Your task to perform on an android device: change notification settings in the gmail app Image 0: 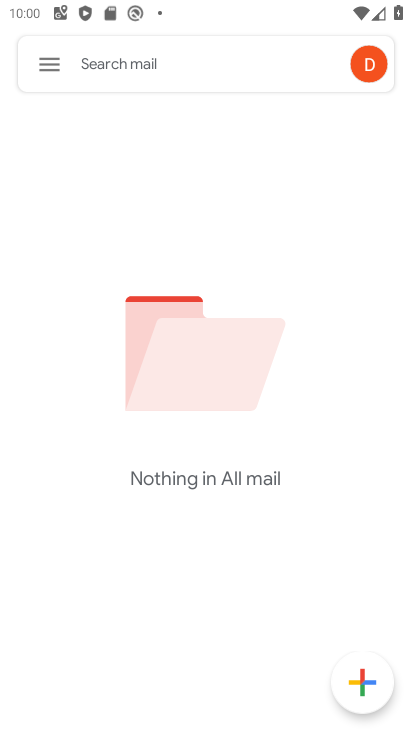
Step 0: click (56, 63)
Your task to perform on an android device: change notification settings in the gmail app Image 1: 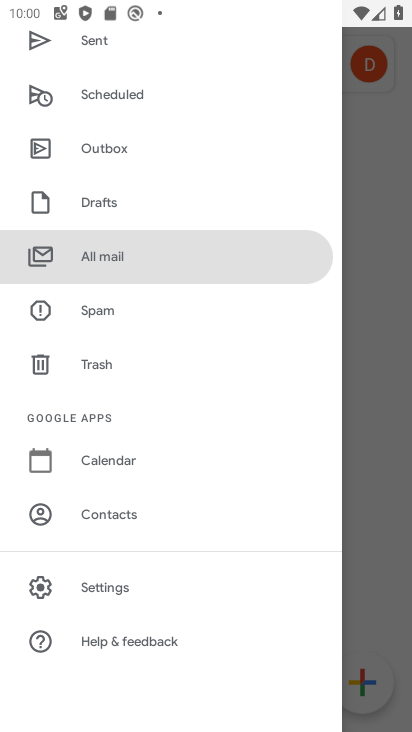
Step 1: drag from (188, 101) to (166, 576)
Your task to perform on an android device: change notification settings in the gmail app Image 2: 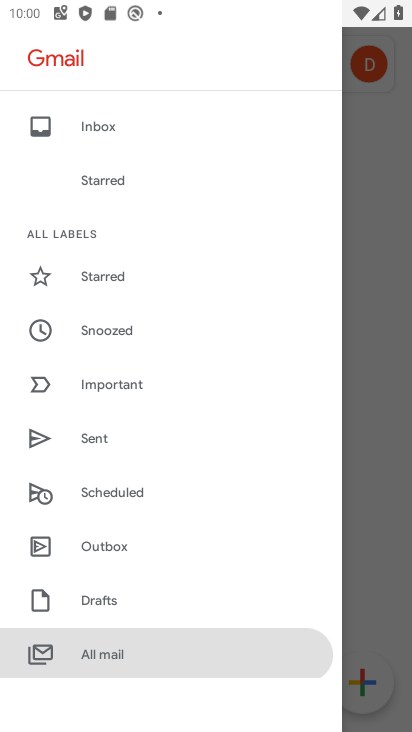
Step 2: drag from (134, 617) to (254, 130)
Your task to perform on an android device: change notification settings in the gmail app Image 3: 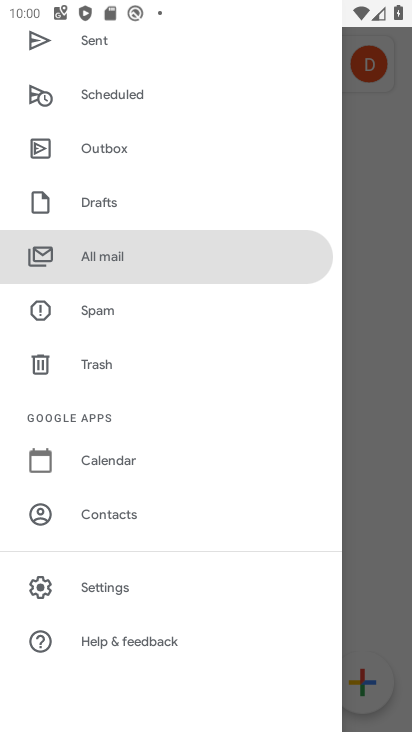
Step 3: click (122, 605)
Your task to perform on an android device: change notification settings in the gmail app Image 4: 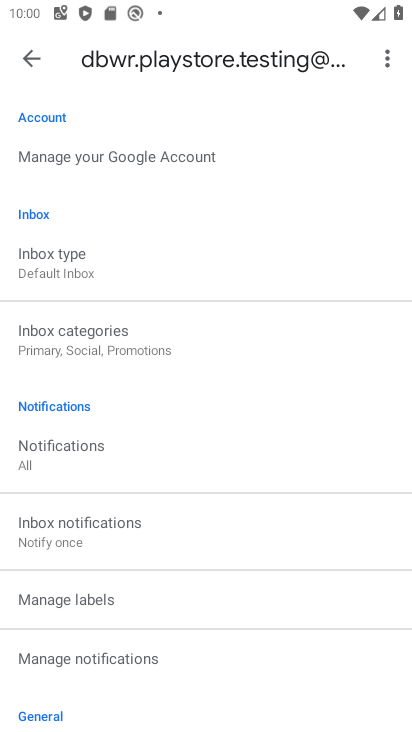
Step 4: click (110, 458)
Your task to perform on an android device: change notification settings in the gmail app Image 5: 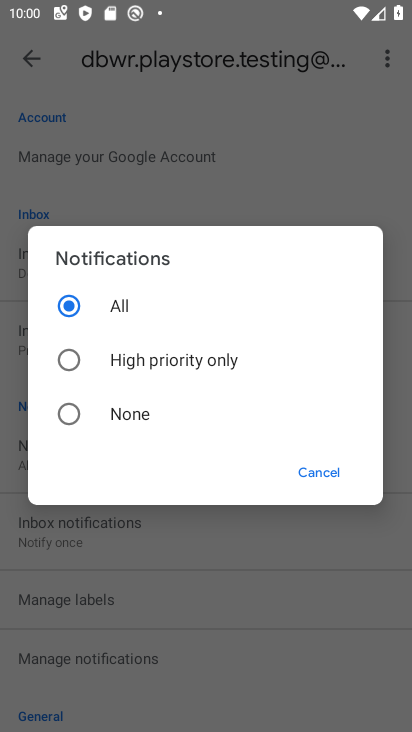
Step 5: click (101, 429)
Your task to perform on an android device: change notification settings in the gmail app Image 6: 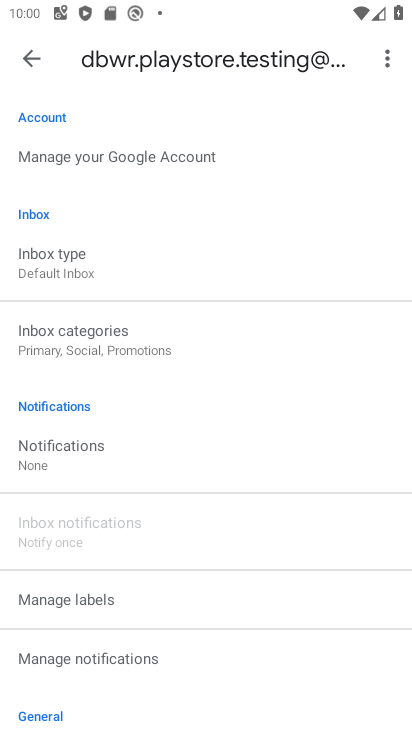
Step 6: task complete